Your task to perform on an android device: toggle notifications settings in the gmail app Image 0: 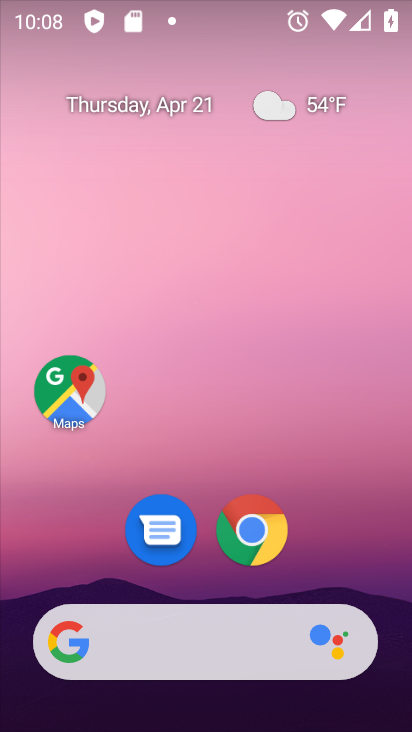
Step 0: click (228, 574)
Your task to perform on an android device: toggle notifications settings in the gmail app Image 1: 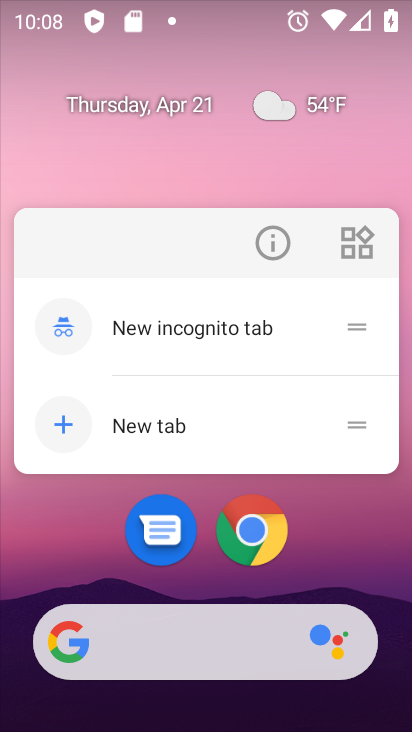
Step 1: click (377, 569)
Your task to perform on an android device: toggle notifications settings in the gmail app Image 2: 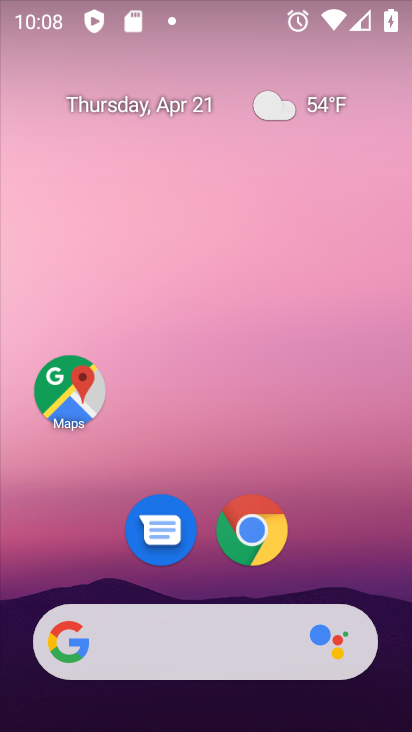
Step 2: drag from (211, 468) to (287, 89)
Your task to perform on an android device: toggle notifications settings in the gmail app Image 3: 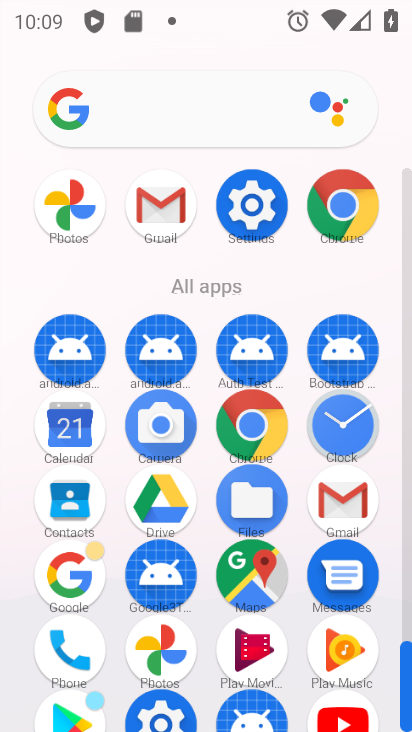
Step 3: click (326, 508)
Your task to perform on an android device: toggle notifications settings in the gmail app Image 4: 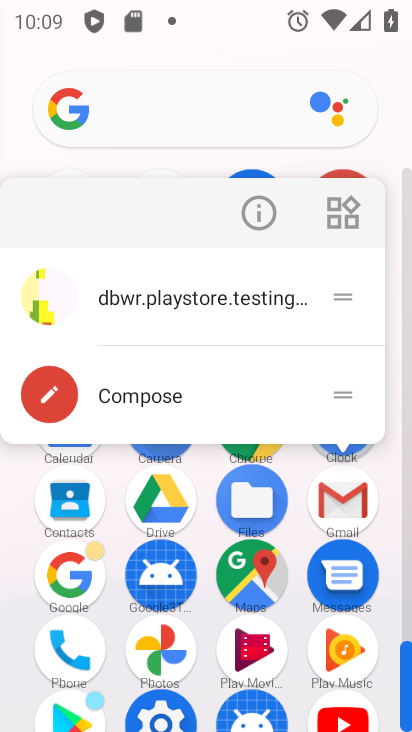
Step 4: click (347, 512)
Your task to perform on an android device: toggle notifications settings in the gmail app Image 5: 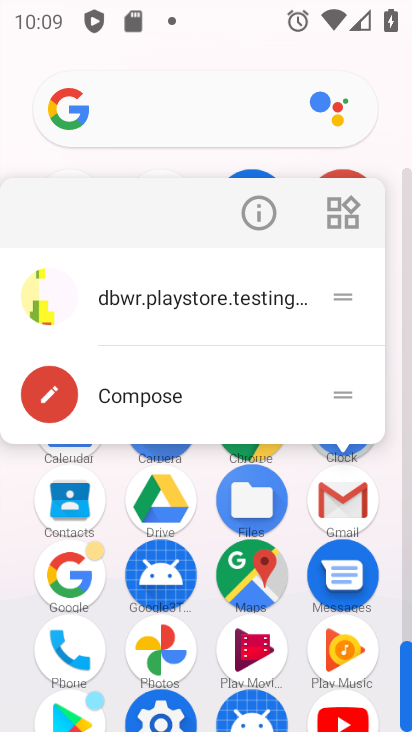
Step 5: click (346, 500)
Your task to perform on an android device: toggle notifications settings in the gmail app Image 6: 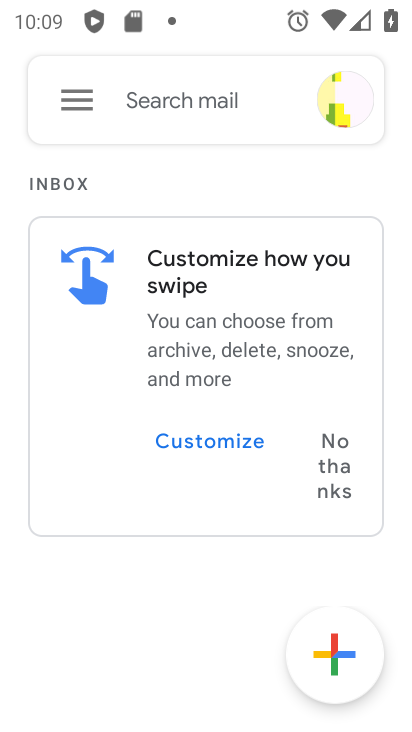
Step 6: click (74, 110)
Your task to perform on an android device: toggle notifications settings in the gmail app Image 7: 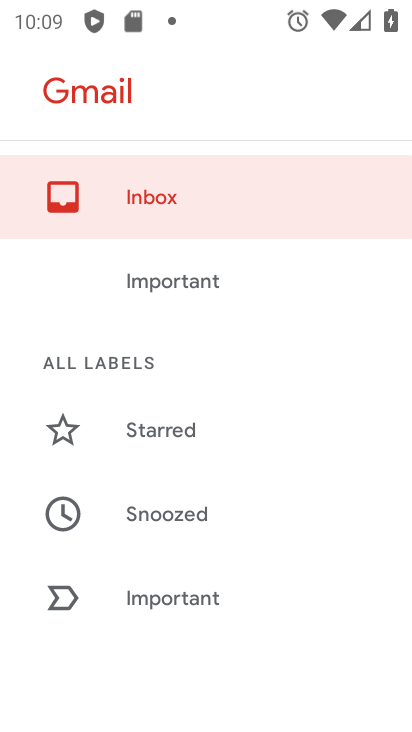
Step 7: drag from (225, 607) to (386, 220)
Your task to perform on an android device: toggle notifications settings in the gmail app Image 8: 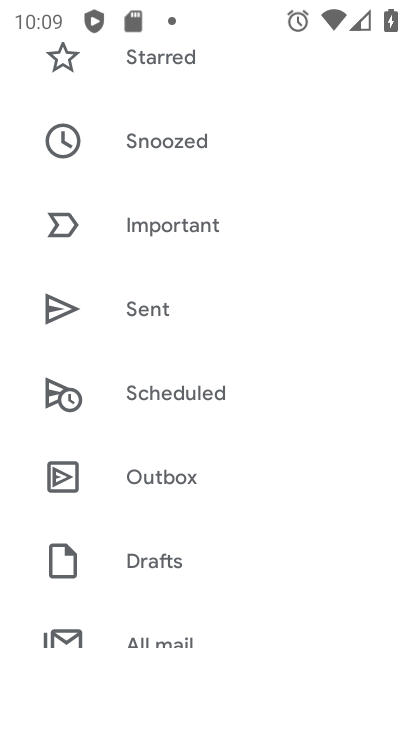
Step 8: drag from (265, 567) to (324, 266)
Your task to perform on an android device: toggle notifications settings in the gmail app Image 9: 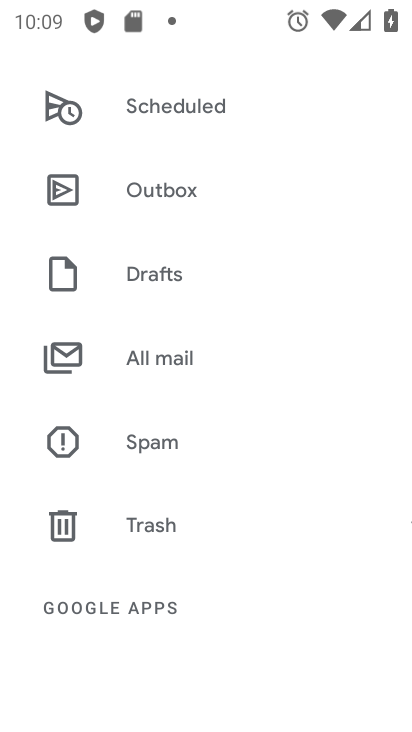
Step 9: drag from (231, 549) to (319, 261)
Your task to perform on an android device: toggle notifications settings in the gmail app Image 10: 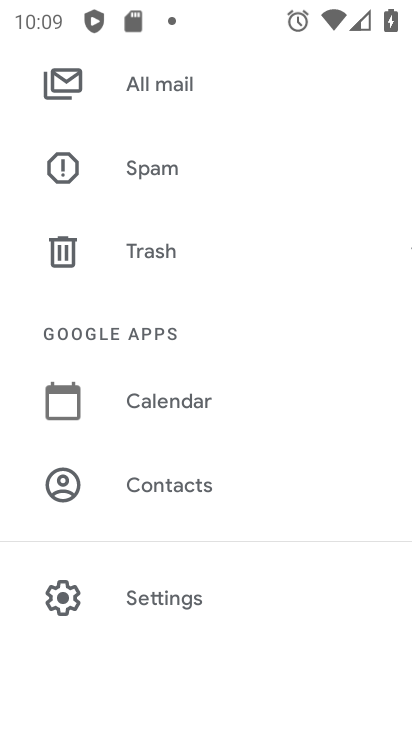
Step 10: click (264, 594)
Your task to perform on an android device: toggle notifications settings in the gmail app Image 11: 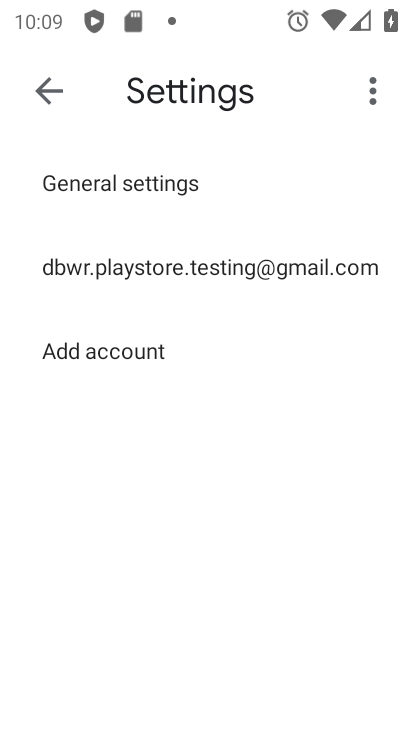
Step 11: click (304, 275)
Your task to perform on an android device: toggle notifications settings in the gmail app Image 12: 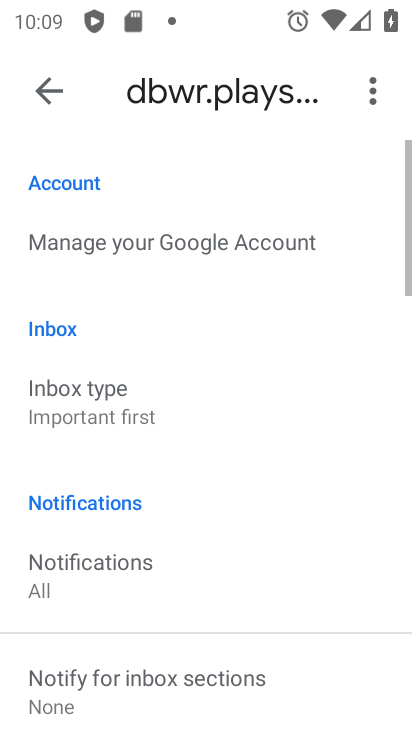
Step 12: drag from (238, 624) to (348, 220)
Your task to perform on an android device: toggle notifications settings in the gmail app Image 13: 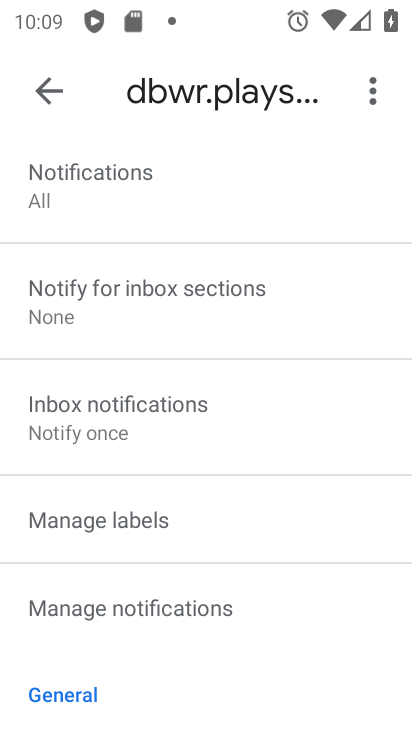
Step 13: click (251, 605)
Your task to perform on an android device: toggle notifications settings in the gmail app Image 14: 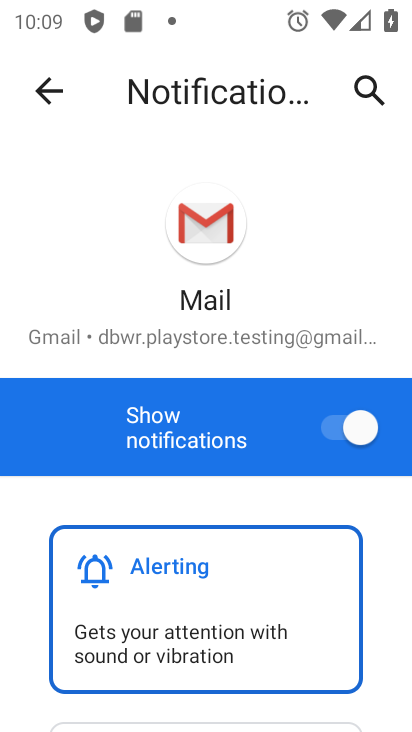
Step 14: click (338, 429)
Your task to perform on an android device: toggle notifications settings in the gmail app Image 15: 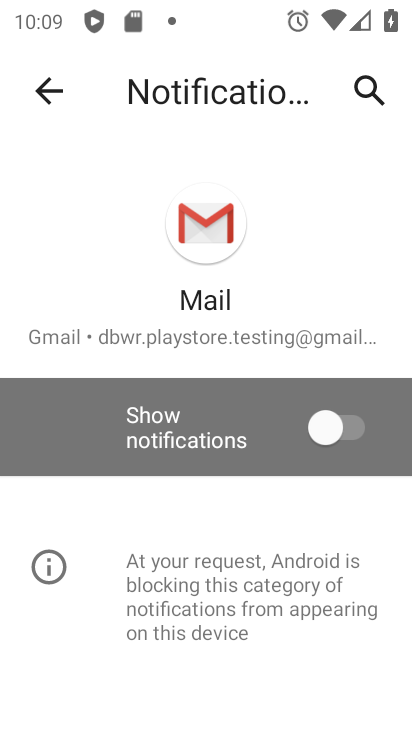
Step 15: task complete